Your task to perform on an android device: install app "Google Chat" Image 0: 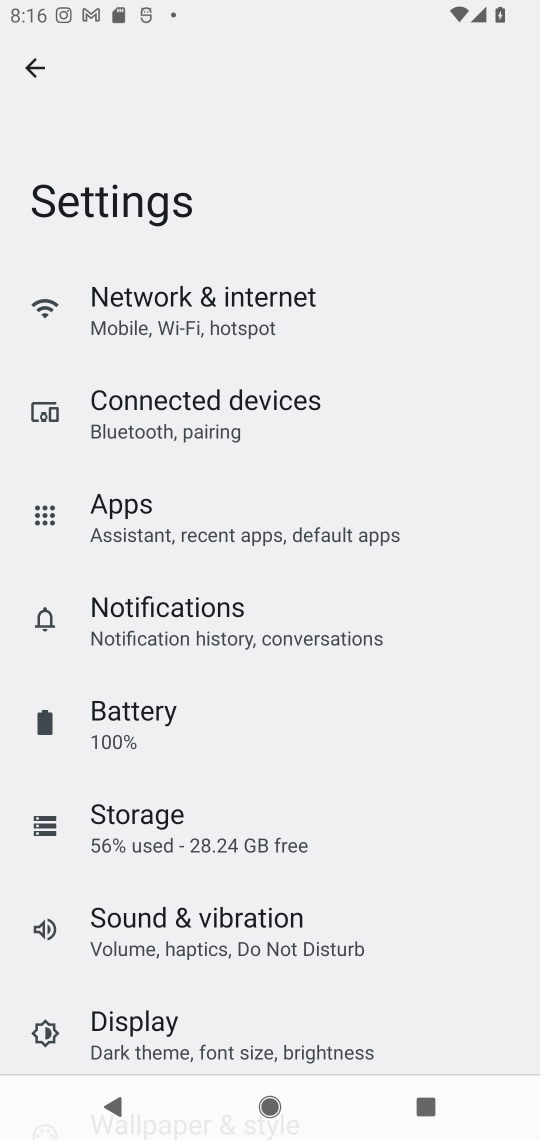
Step 0: press home button
Your task to perform on an android device: install app "Google Chat" Image 1: 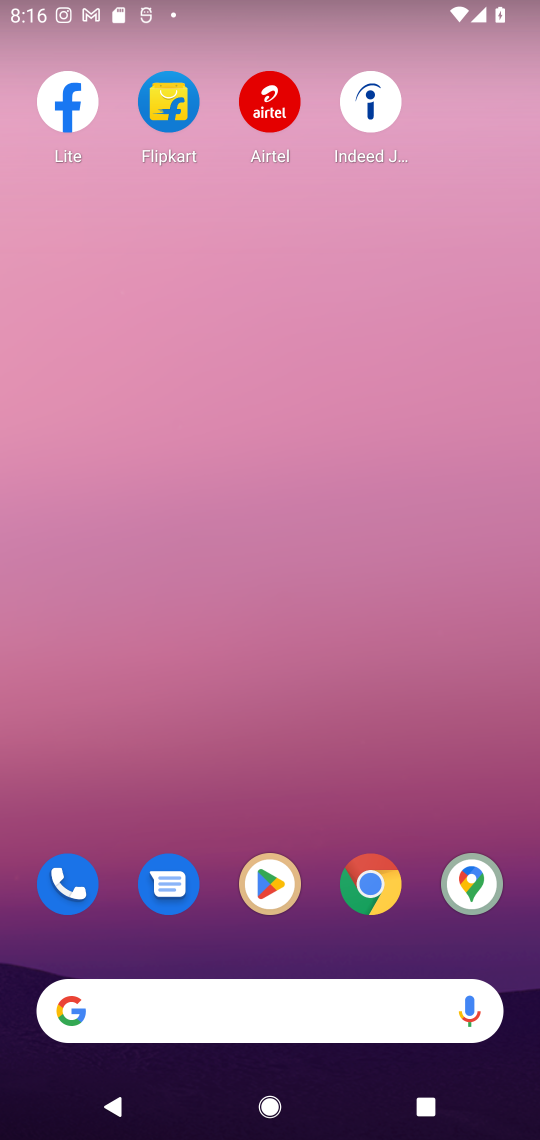
Step 1: drag from (228, 1035) to (202, 554)
Your task to perform on an android device: install app "Google Chat" Image 2: 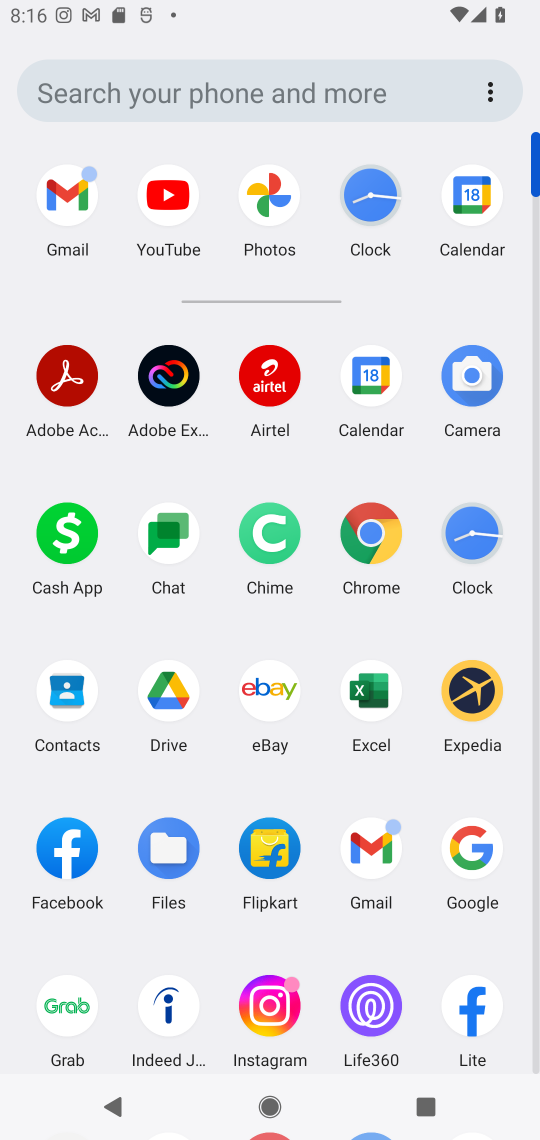
Step 2: drag from (213, 808) to (203, 224)
Your task to perform on an android device: install app "Google Chat" Image 3: 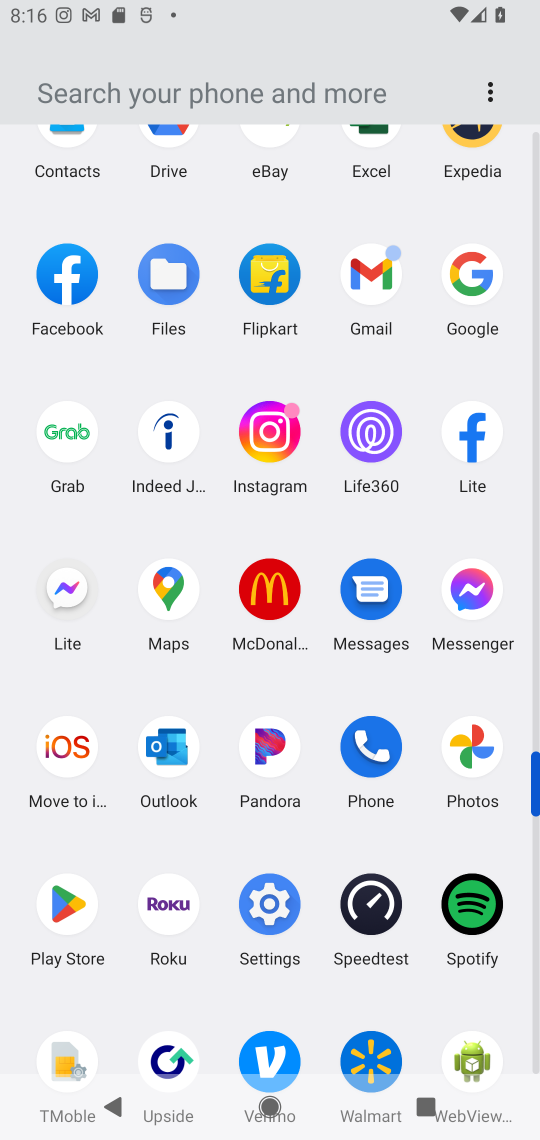
Step 3: click (76, 895)
Your task to perform on an android device: install app "Google Chat" Image 4: 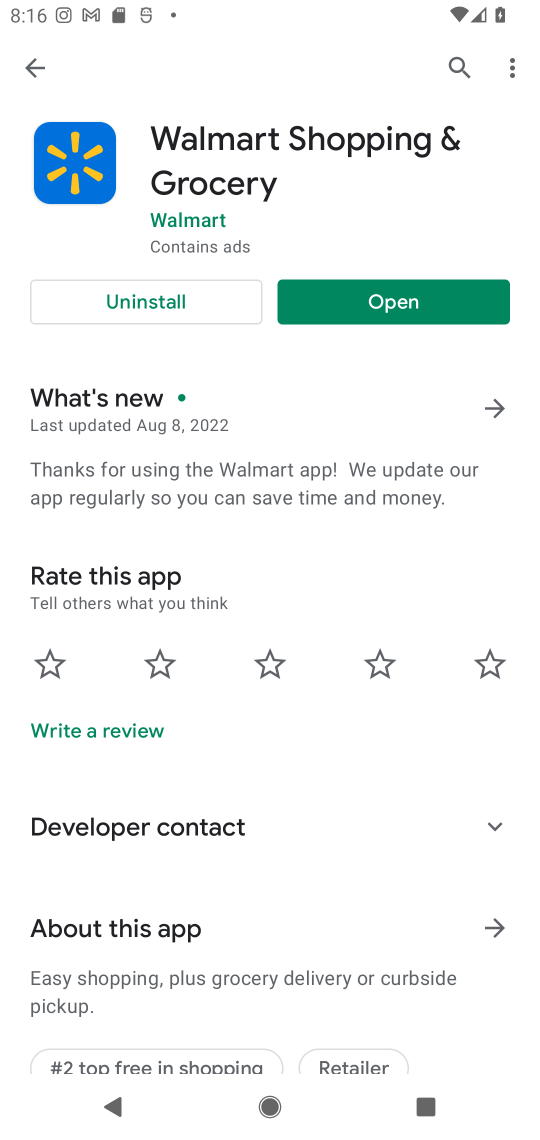
Step 4: press back button
Your task to perform on an android device: install app "Google Chat" Image 5: 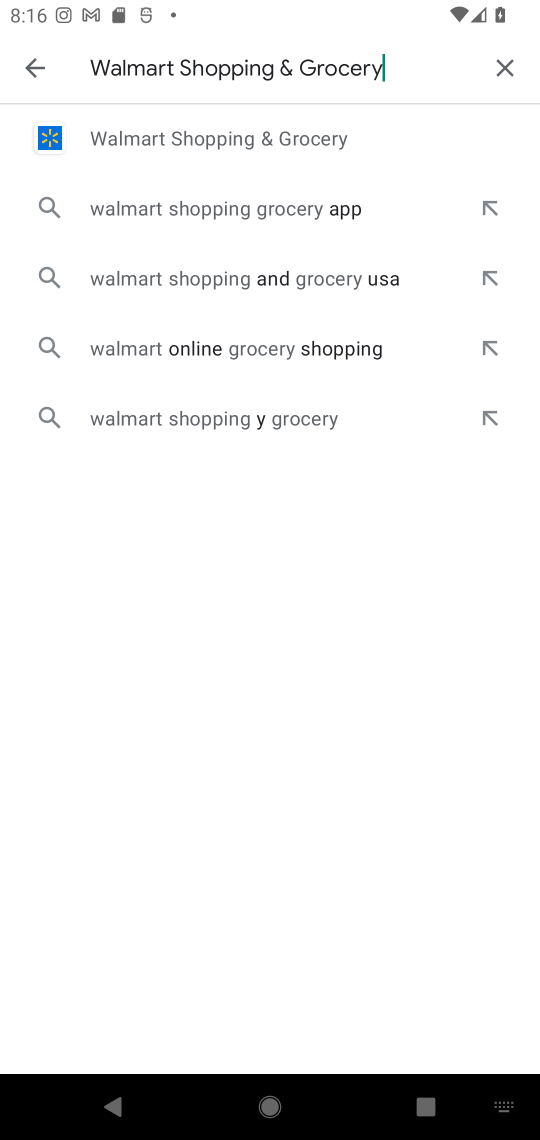
Step 5: press back button
Your task to perform on an android device: install app "Google Chat" Image 6: 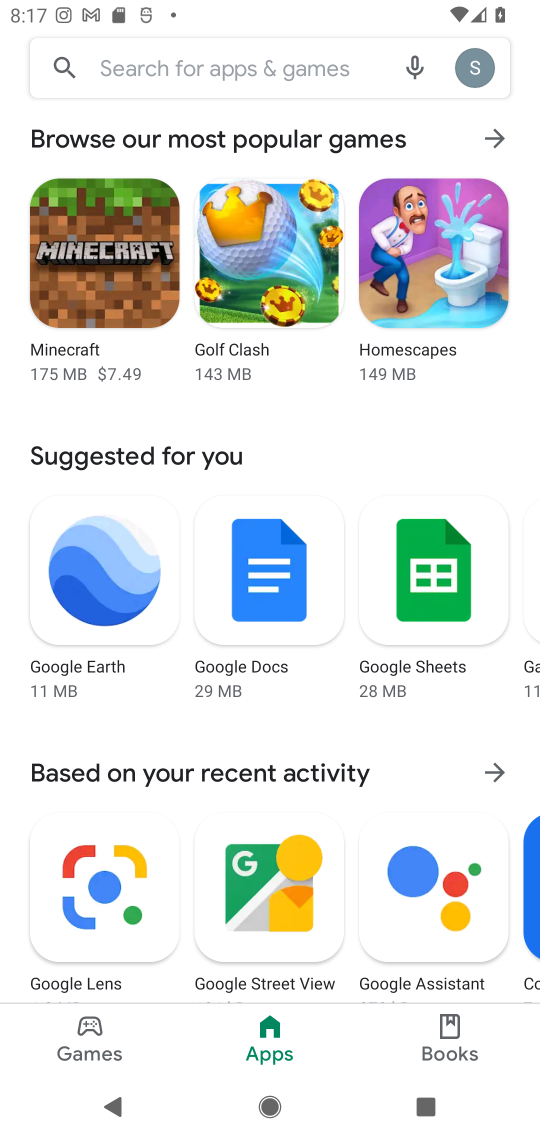
Step 6: click (243, 53)
Your task to perform on an android device: install app "Google Chat" Image 7: 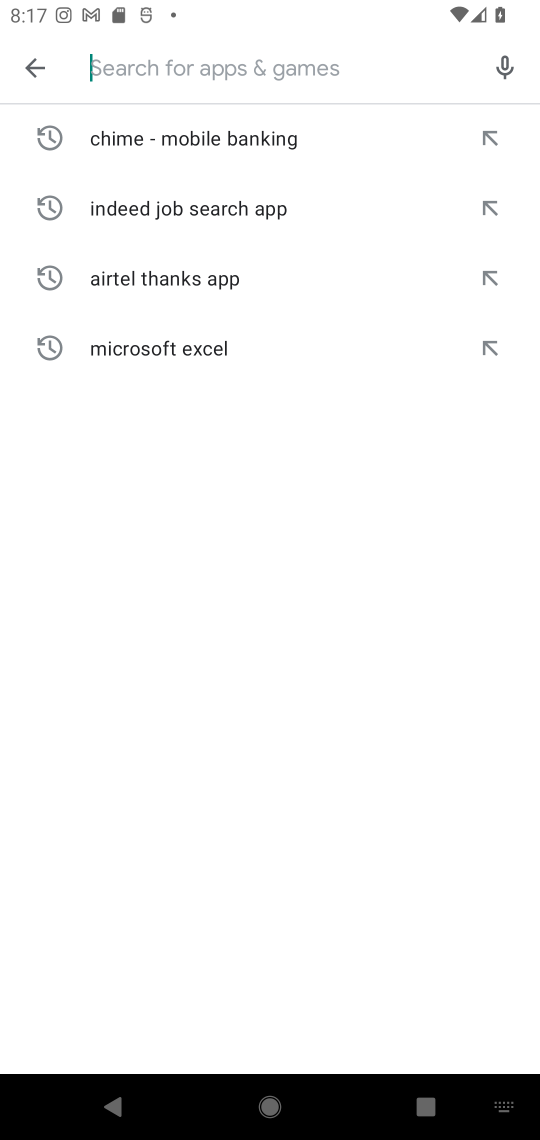
Step 7: type "Google Chat"
Your task to perform on an android device: install app "Google Chat" Image 8: 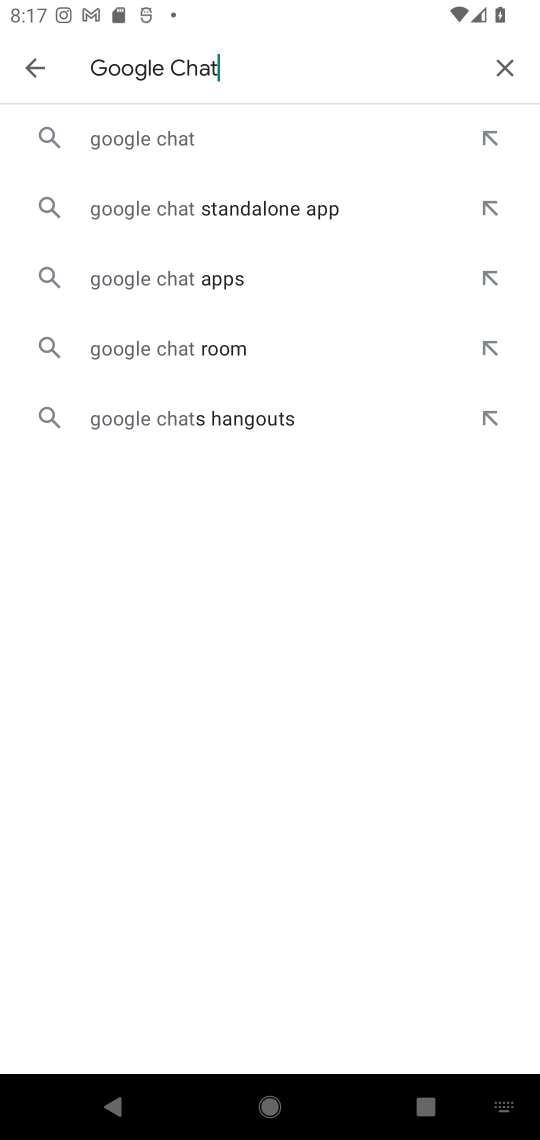
Step 8: click (170, 144)
Your task to perform on an android device: install app "Google Chat" Image 9: 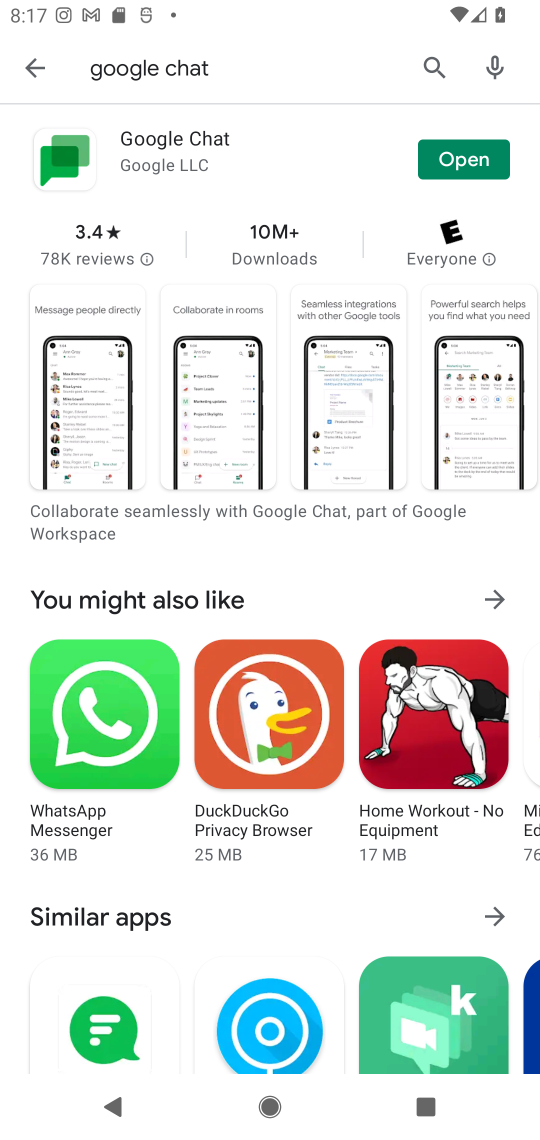
Step 9: task complete